Your task to perform on an android device: see creations saved in the google photos Image 0: 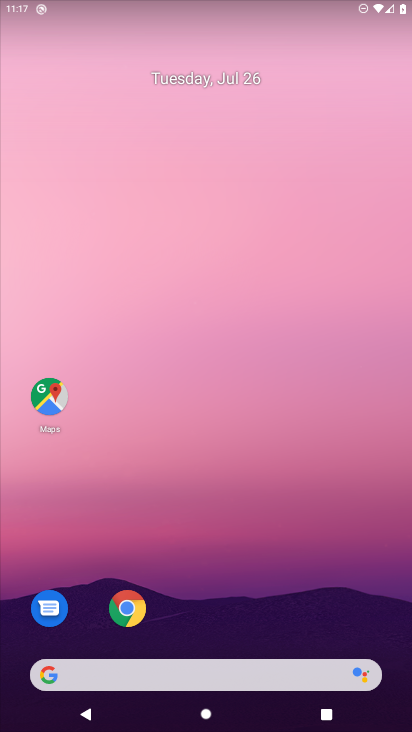
Step 0: click (216, 294)
Your task to perform on an android device: see creations saved in the google photos Image 1: 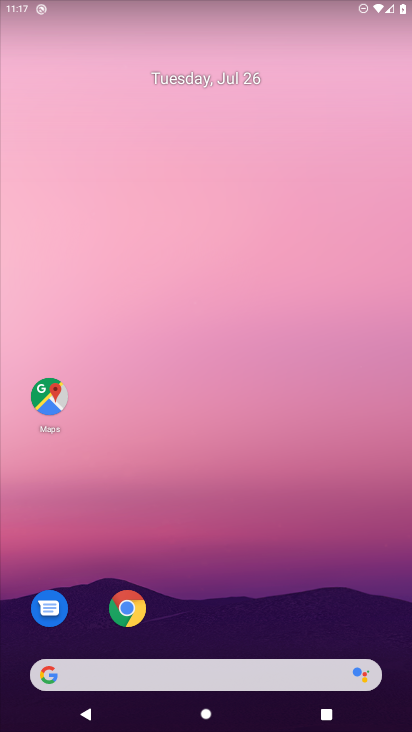
Step 1: drag from (187, 562) to (221, 171)
Your task to perform on an android device: see creations saved in the google photos Image 2: 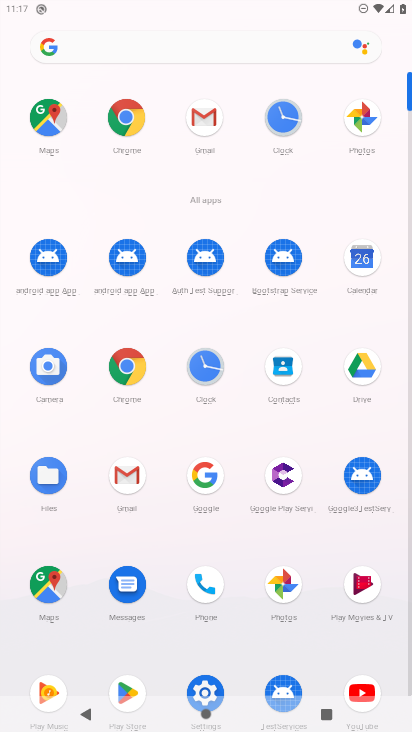
Step 2: click (282, 584)
Your task to perform on an android device: see creations saved in the google photos Image 3: 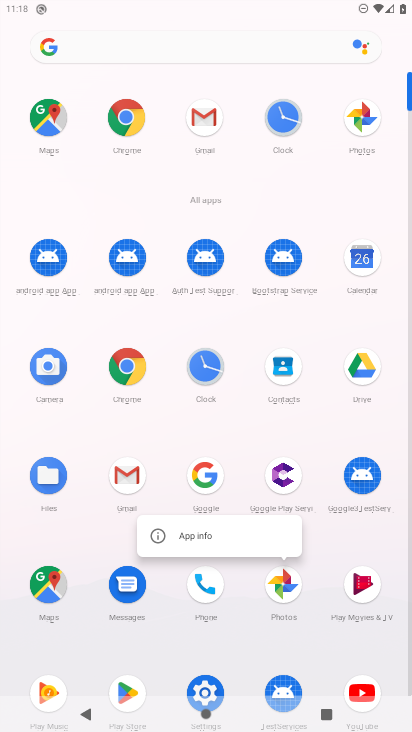
Step 3: click (209, 554)
Your task to perform on an android device: see creations saved in the google photos Image 4: 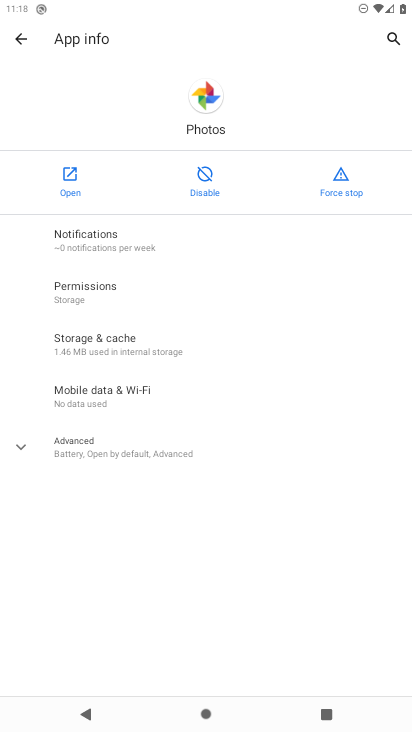
Step 4: click (68, 190)
Your task to perform on an android device: see creations saved in the google photos Image 5: 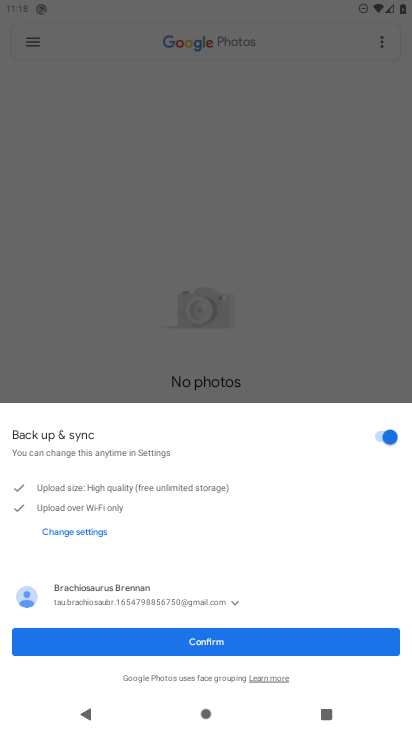
Step 5: drag from (212, 553) to (208, 416)
Your task to perform on an android device: see creations saved in the google photos Image 6: 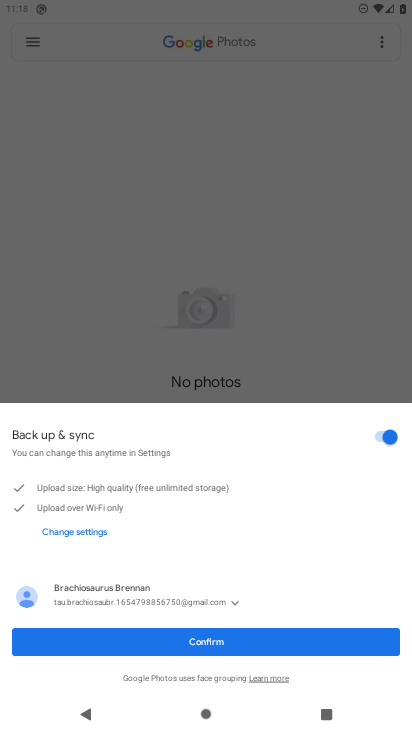
Step 6: click (190, 640)
Your task to perform on an android device: see creations saved in the google photos Image 7: 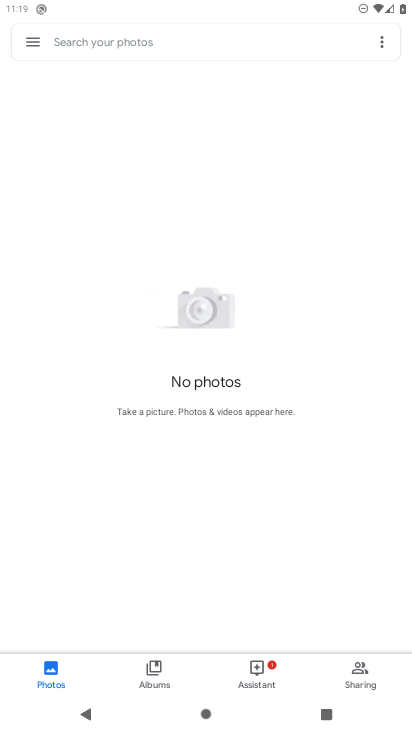
Step 7: drag from (79, 506) to (161, 324)
Your task to perform on an android device: see creations saved in the google photos Image 8: 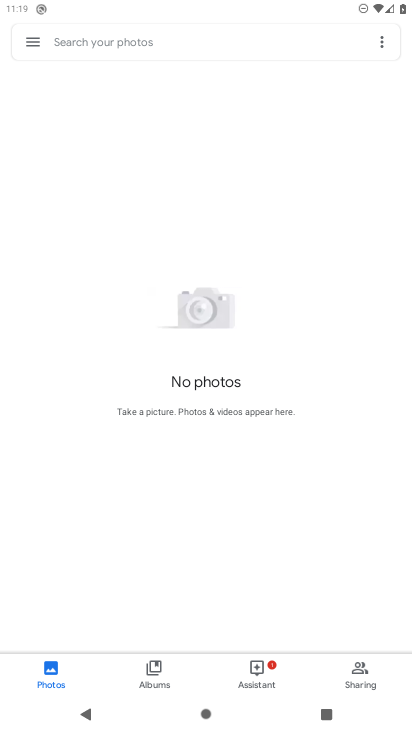
Step 8: click (116, 668)
Your task to perform on an android device: see creations saved in the google photos Image 9: 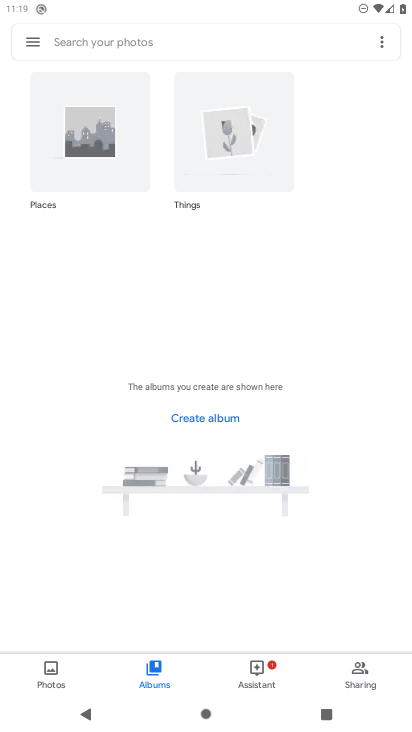
Step 9: click (107, 35)
Your task to perform on an android device: see creations saved in the google photos Image 10: 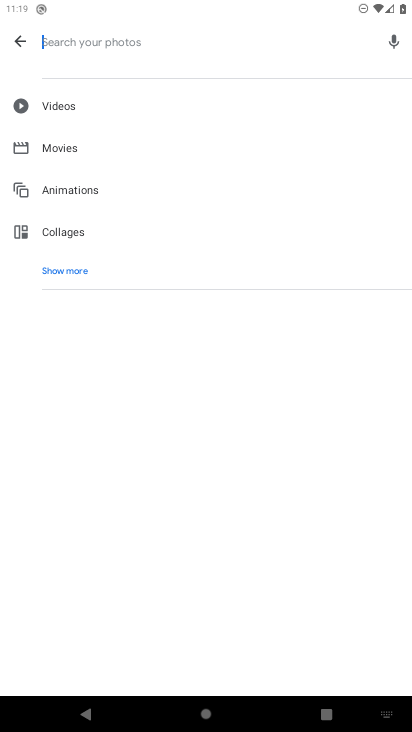
Step 10: click (48, 271)
Your task to perform on an android device: see creations saved in the google photos Image 11: 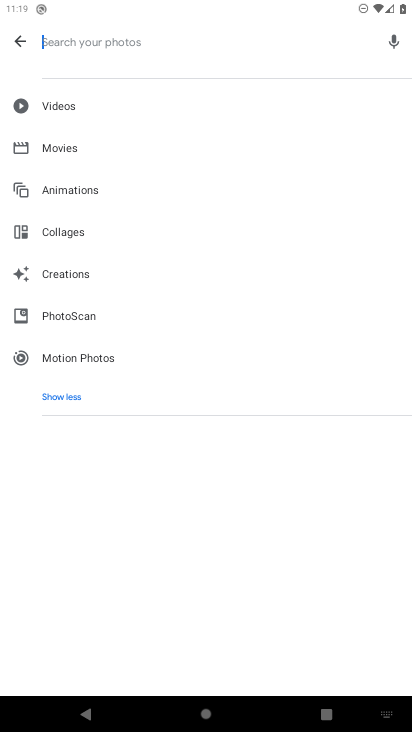
Step 11: click (73, 267)
Your task to perform on an android device: see creations saved in the google photos Image 12: 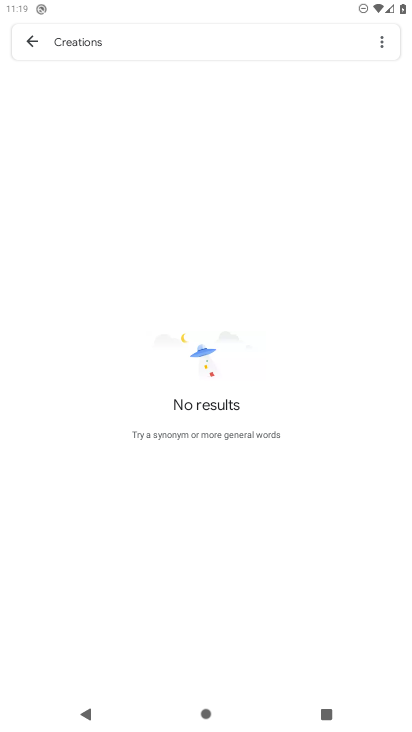
Step 12: task complete